Your task to perform on an android device: turn off airplane mode Image 0: 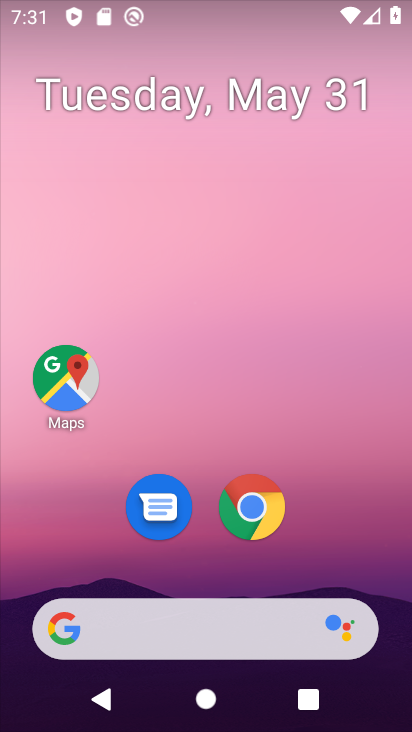
Step 0: drag from (364, 584) to (349, 5)
Your task to perform on an android device: turn off airplane mode Image 1: 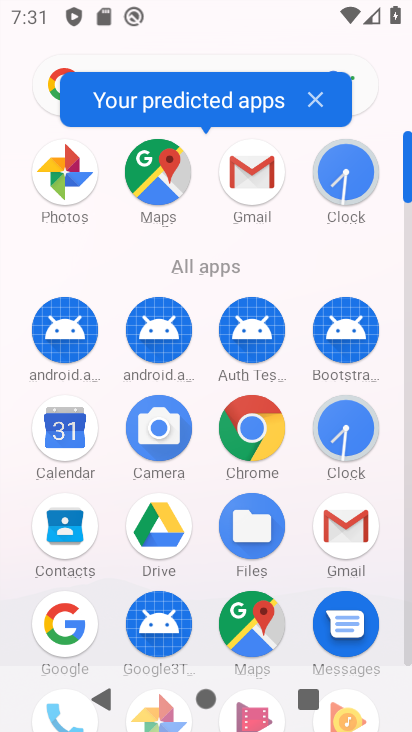
Step 1: drag from (410, 480) to (405, 428)
Your task to perform on an android device: turn off airplane mode Image 2: 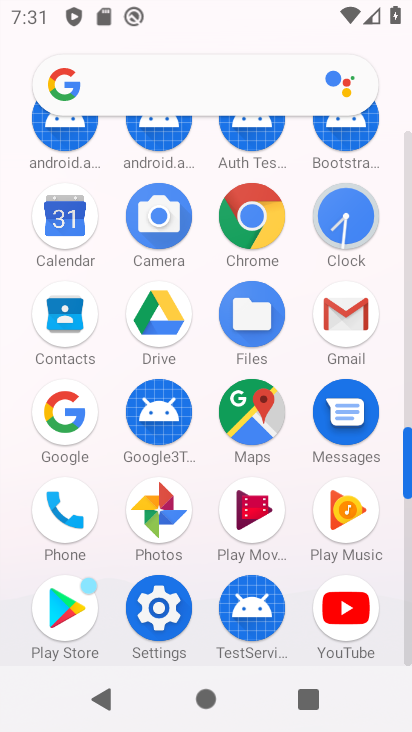
Step 2: click (155, 613)
Your task to perform on an android device: turn off airplane mode Image 3: 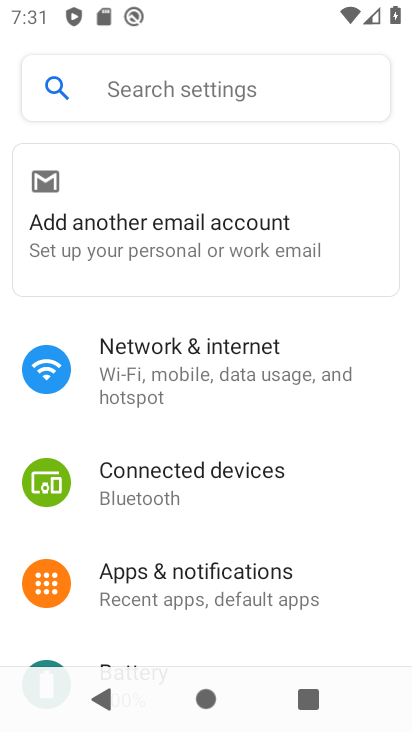
Step 3: click (172, 366)
Your task to perform on an android device: turn off airplane mode Image 4: 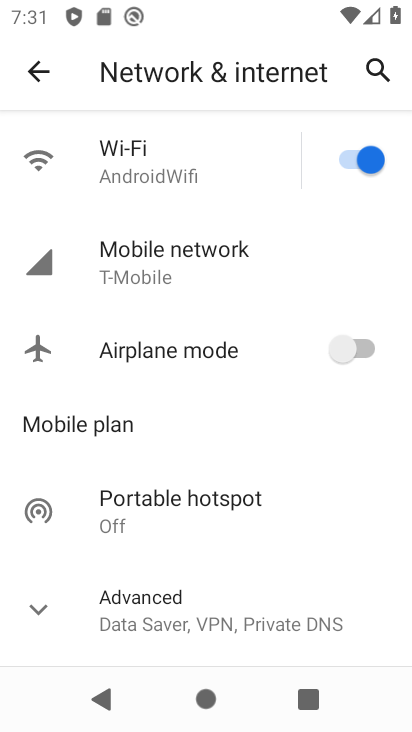
Step 4: task complete